Your task to perform on an android device: Go to network settings Image 0: 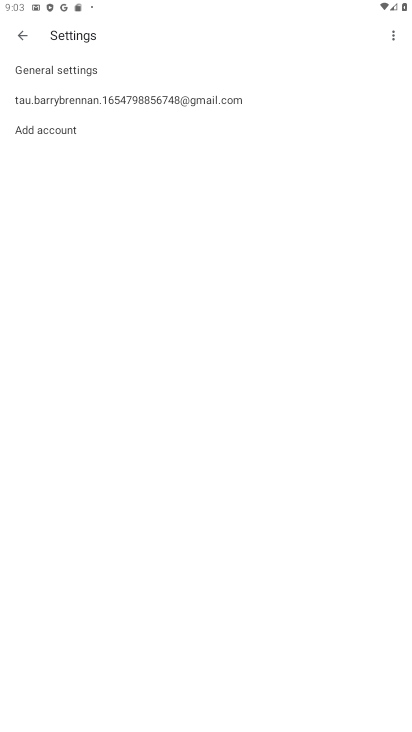
Step 0: press home button
Your task to perform on an android device: Go to network settings Image 1: 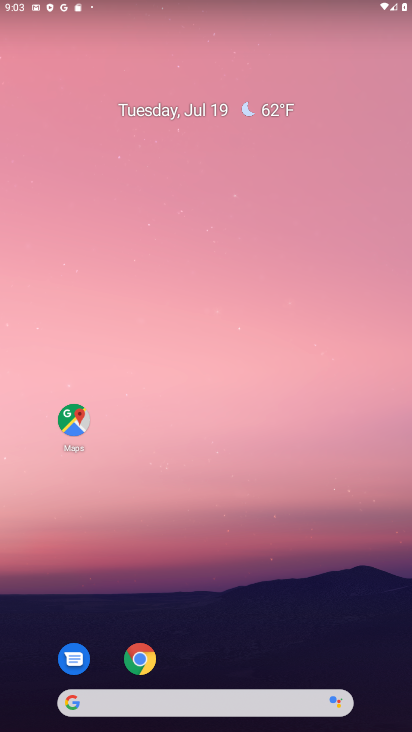
Step 1: drag from (365, 675) to (314, 11)
Your task to perform on an android device: Go to network settings Image 2: 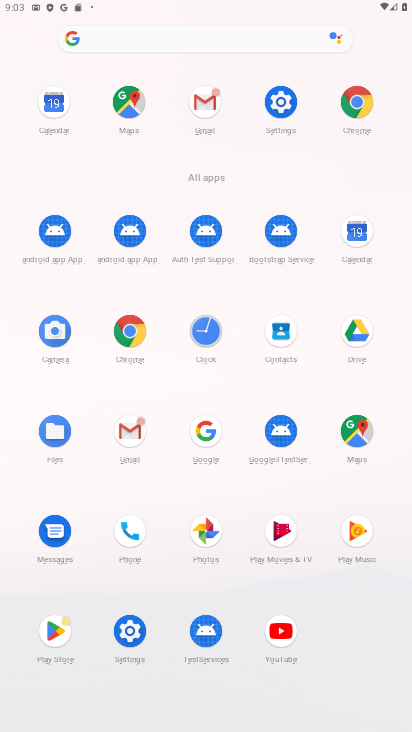
Step 2: click (282, 110)
Your task to perform on an android device: Go to network settings Image 3: 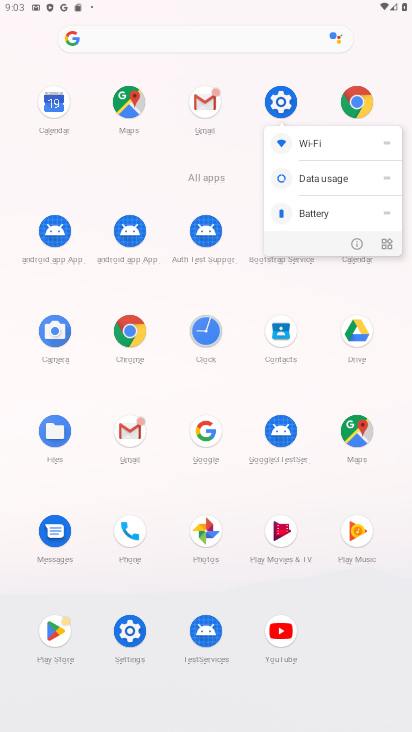
Step 3: click (291, 106)
Your task to perform on an android device: Go to network settings Image 4: 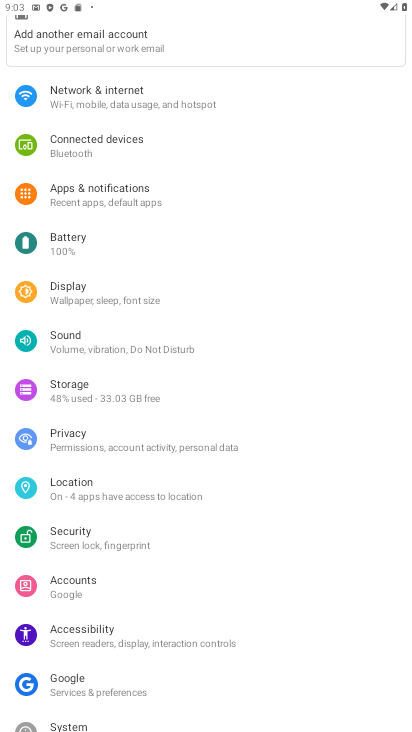
Step 4: click (151, 85)
Your task to perform on an android device: Go to network settings Image 5: 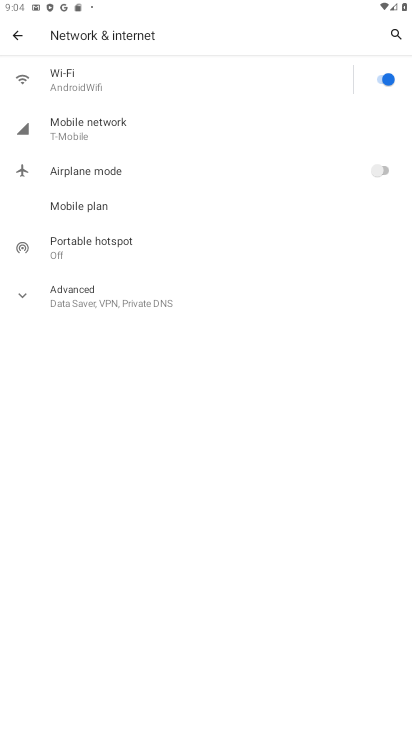
Step 5: task complete